Your task to perform on an android device: search for starred emails in the gmail app Image 0: 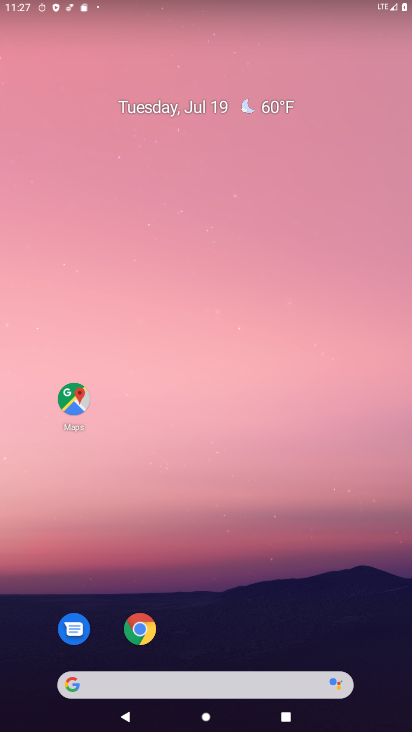
Step 0: drag from (353, 645) to (320, 160)
Your task to perform on an android device: search for starred emails in the gmail app Image 1: 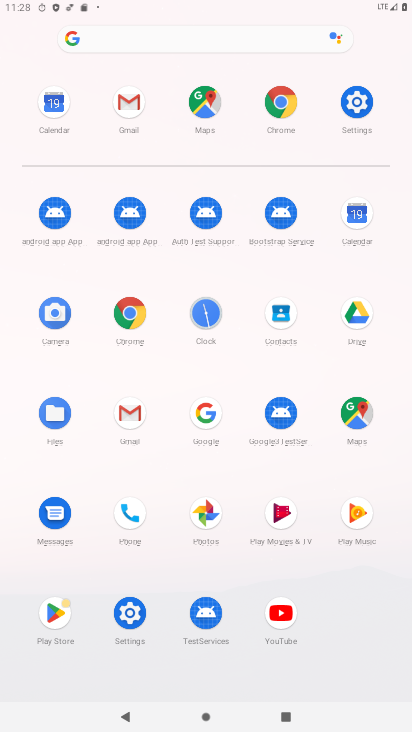
Step 1: click (132, 103)
Your task to perform on an android device: search for starred emails in the gmail app Image 2: 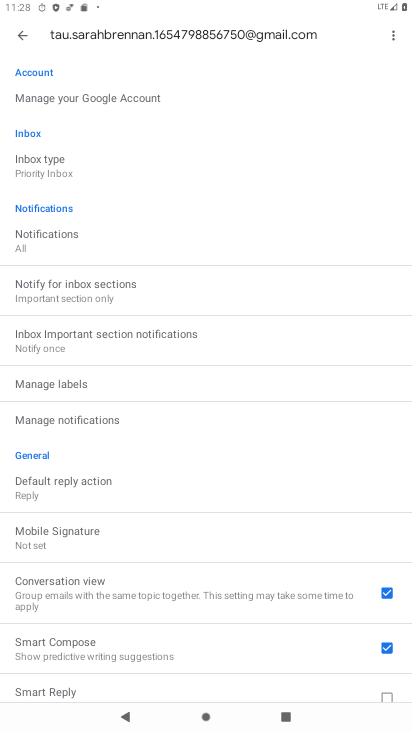
Step 2: click (24, 40)
Your task to perform on an android device: search for starred emails in the gmail app Image 3: 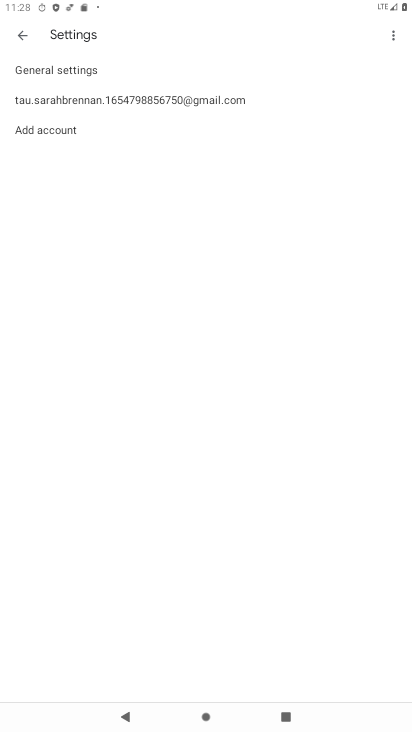
Step 3: click (21, 36)
Your task to perform on an android device: search for starred emails in the gmail app Image 4: 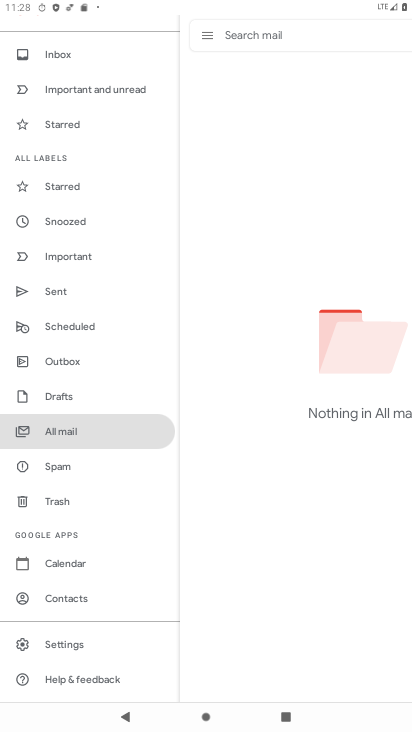
Step 4: click (78, 184)
Your task to perform on an android device: search for starred emails in the gmail app Image 5: 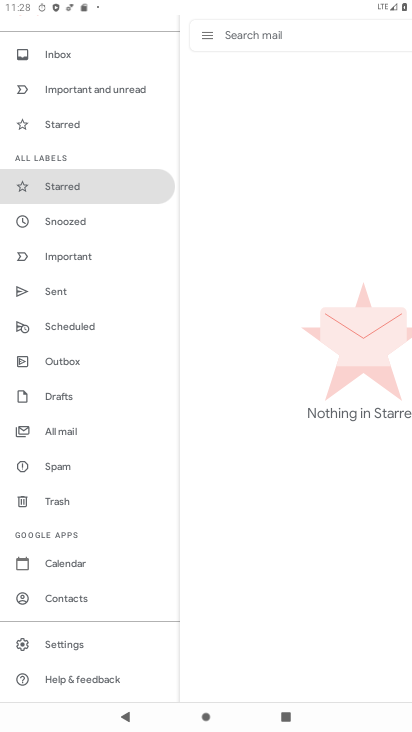
Step 5: task complete